Your task to perform on an android device: turn on priority inbox in the gmail app Image 0: 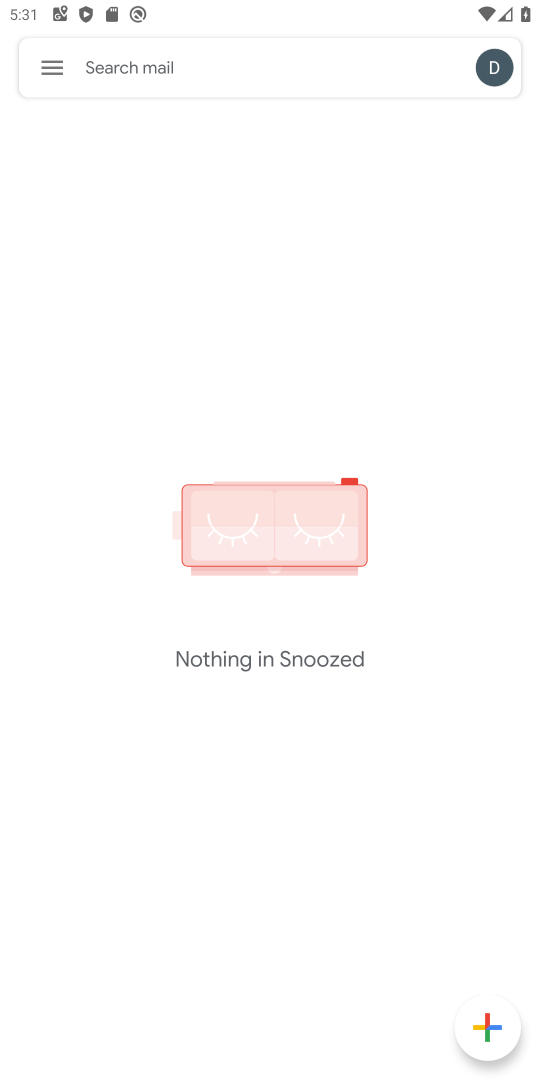
Step 0: press home button
Your task to perform on an android device: turn on priority inbox in the gmail app Image 1: 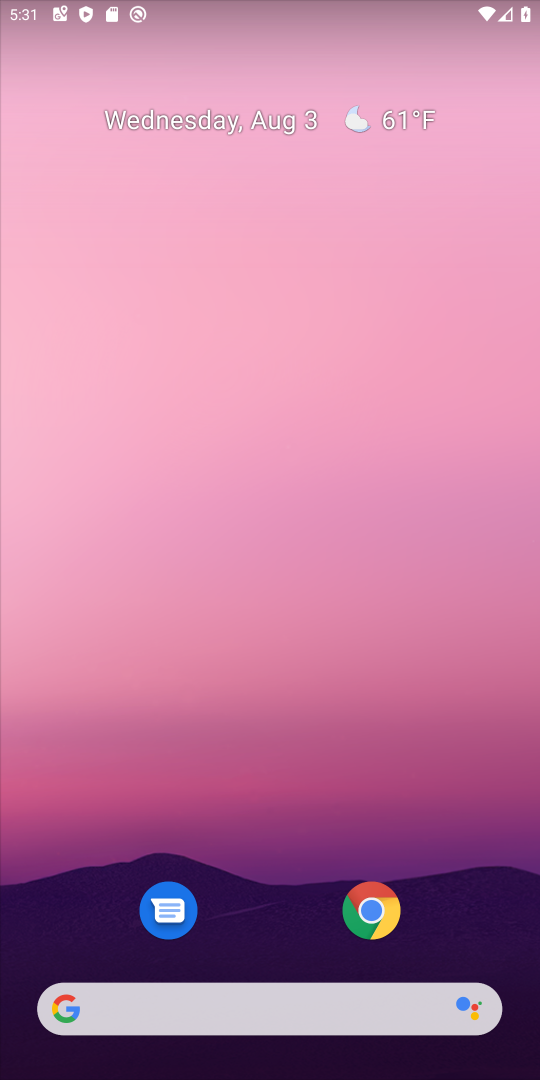
Step 1: drag from (222, 935) to (518, 772)
Your task to perform on an android device: turn on priority inbox in the gmail app Image 2: 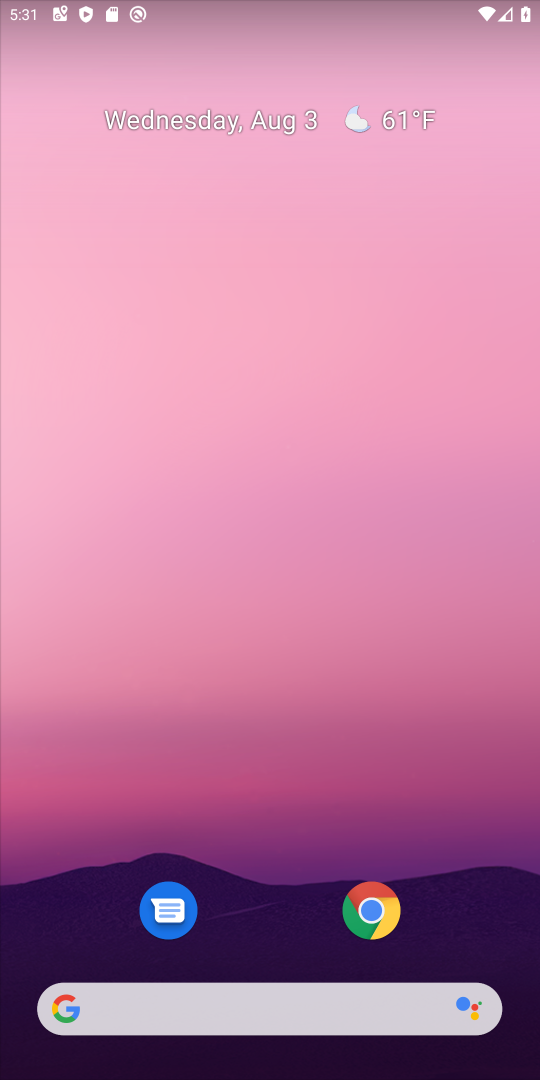
Step 2: drag from (259, 938) to (386, 5)
Your task to perform on an android device: turn on priority inbox in the gmail app Image 3: 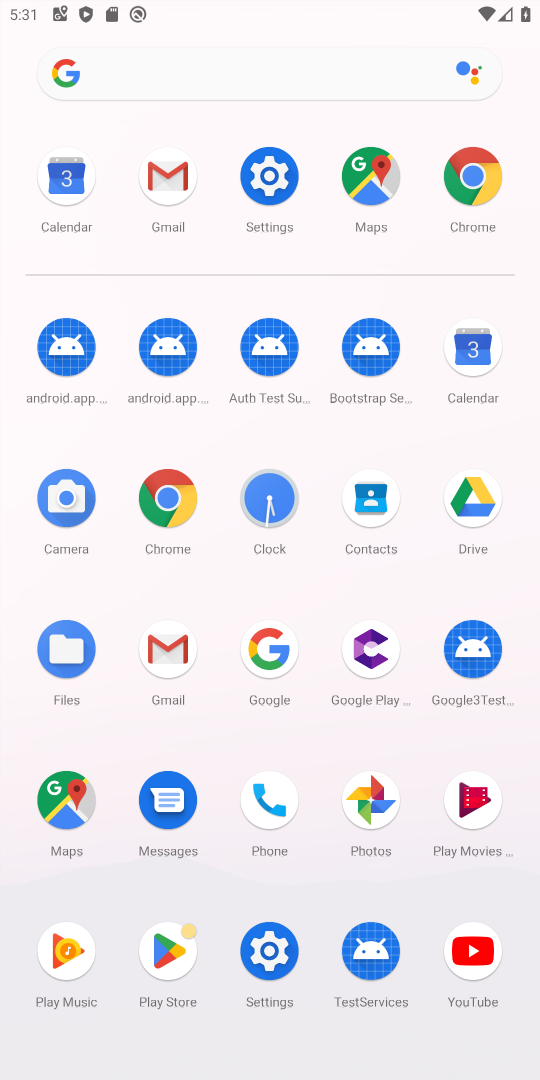
Step 3: click (166, 651)
Your task to perform on an android device: turn on priority inbox in the gmail app Image 4: 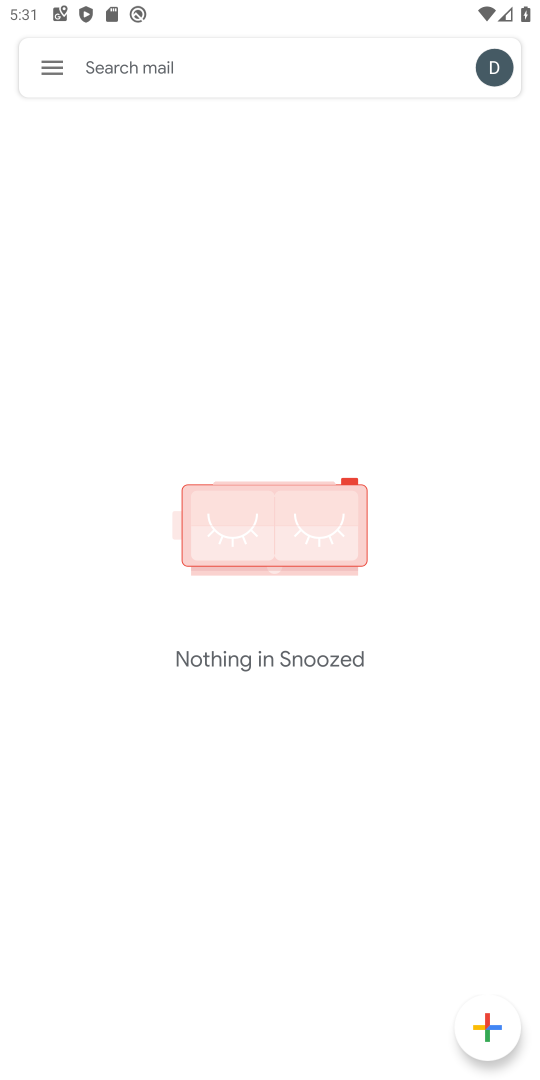
Step 4: click (47, 74)
Your task to perform on an android device: turn on priority inbox in the gmail app Image 5: 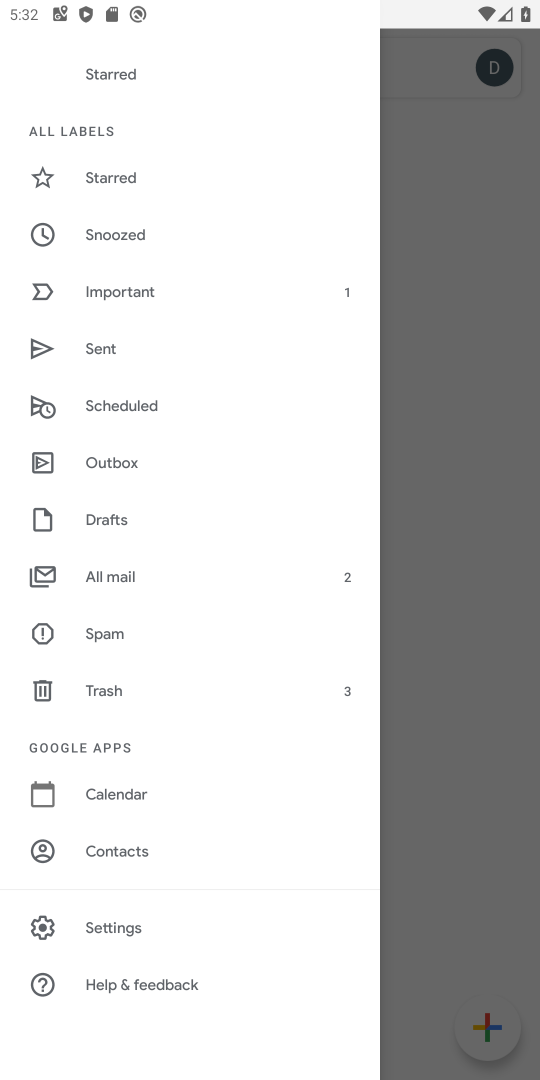
Step 5: click (115, 928)
Your task to perform on an android device: turn on priority inbox in the gmail app Image 6: 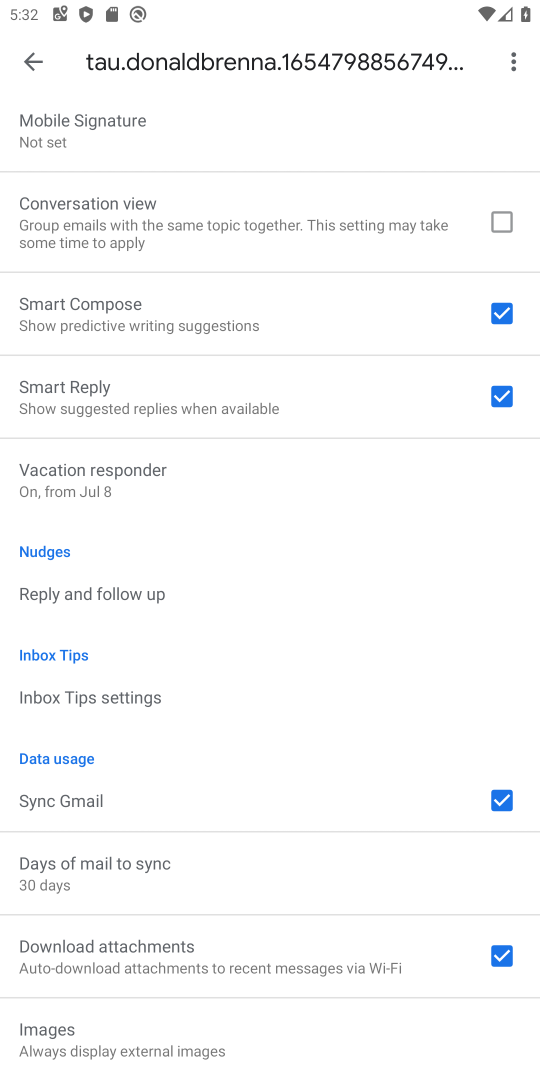
Step 6: drag from (226, 884) to (226, 272)
Your task to perform on an android device: turn on priority inbox in the gmail app Image 7: 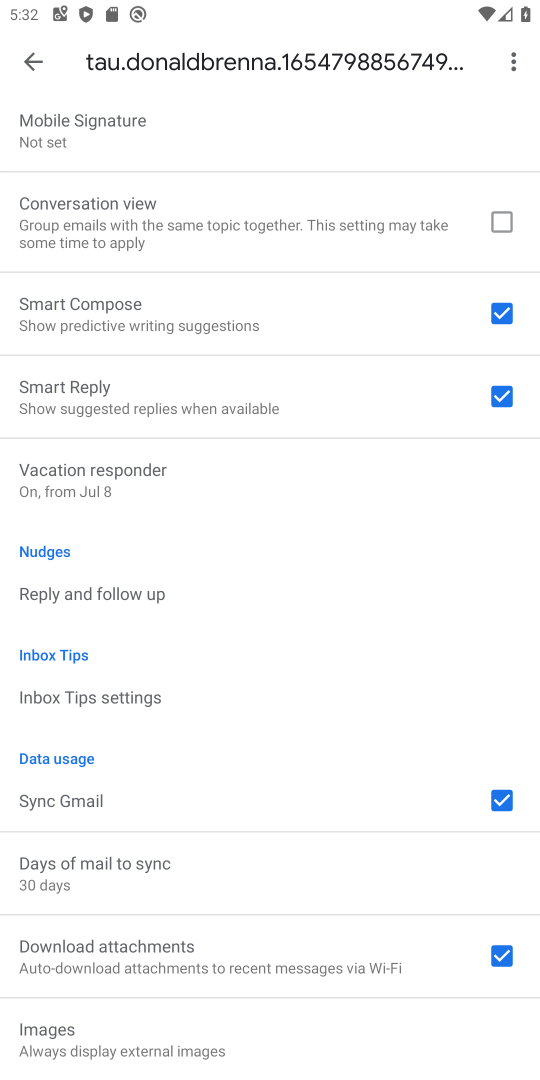
Step 7: drag from (250, 840) to (248, 133)
Your task to perform on an android device: turn on priority inbox in the gmail app Image 8: 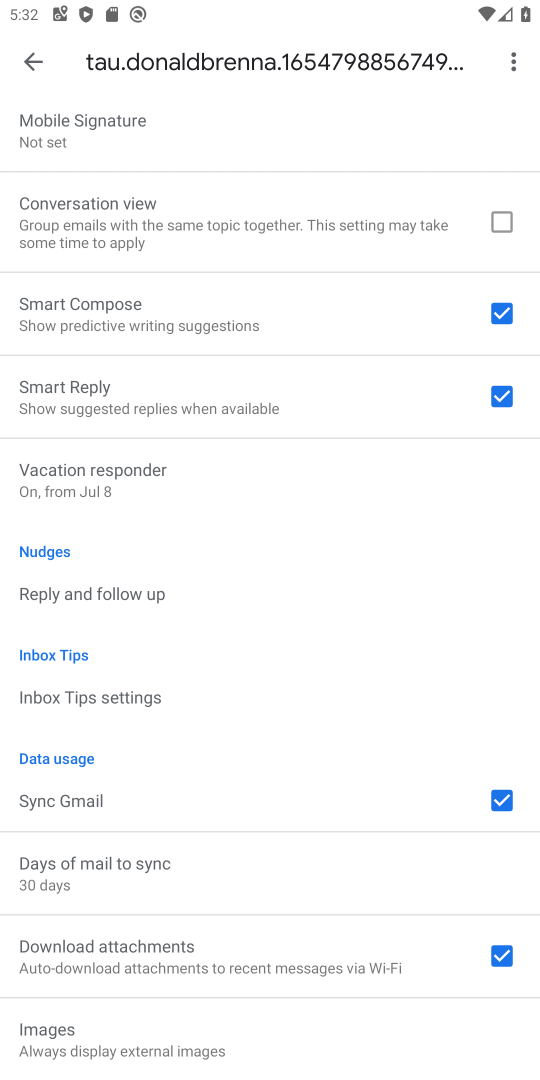
Step 8: drag from (158, 148) to (93, 896)
Your task to perform on an android device: turn on priority inbox in the gmail app Image 9: 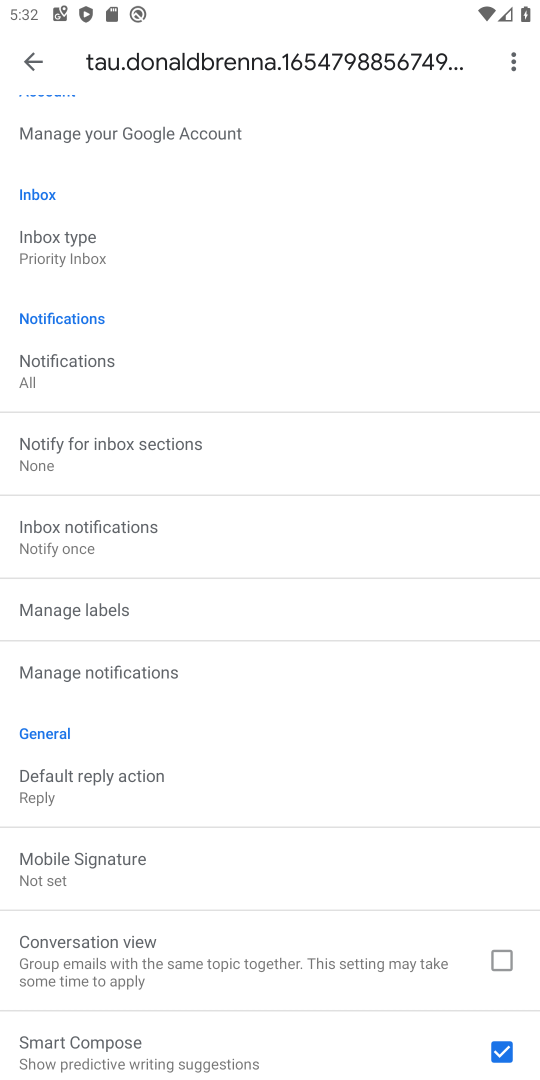
Step 9: click (87, 236)
Your task to perform on an android device: turn on priority inbox in the gmail app Image 10: 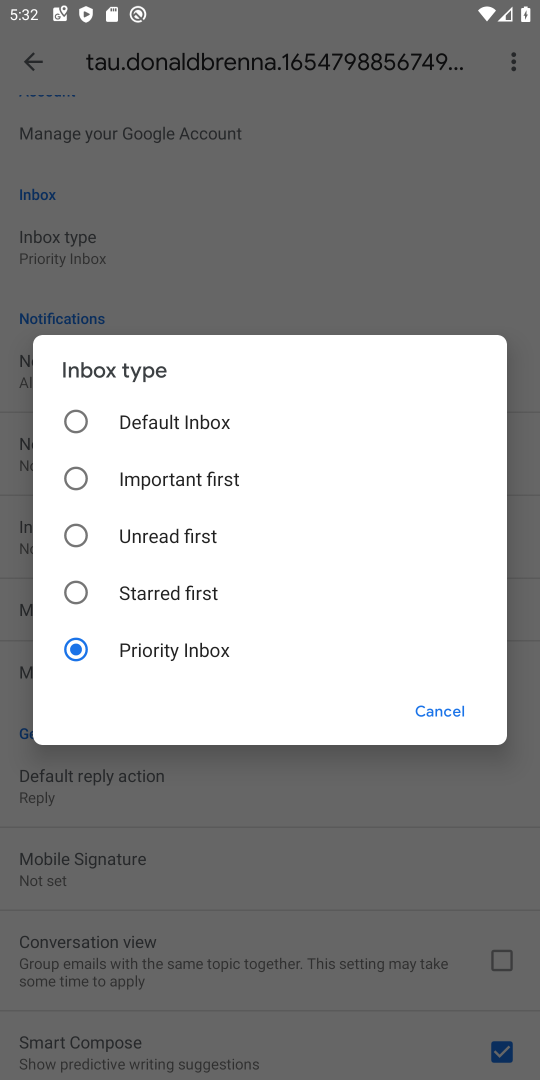
Step 10: click (222, 653)
Your task to perform on an android device: turn on priority inbox in the gmail app Image 11: 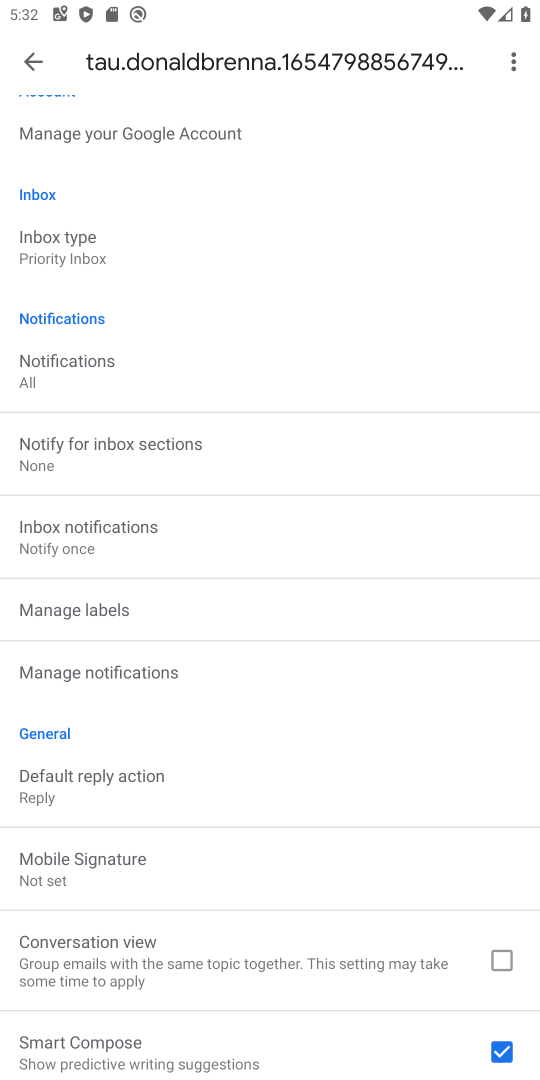
Step 11: task complete